Your task to perform on an android device: Open maps Image 0: 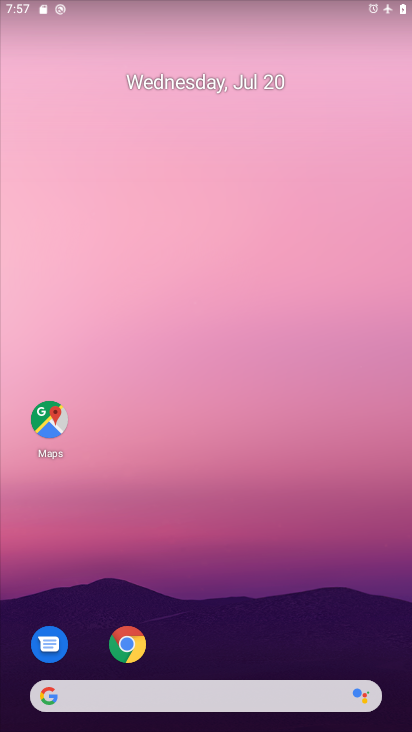
Step 0: click (47, 419)
Your task to perform on an android device: Open maps Image 1: 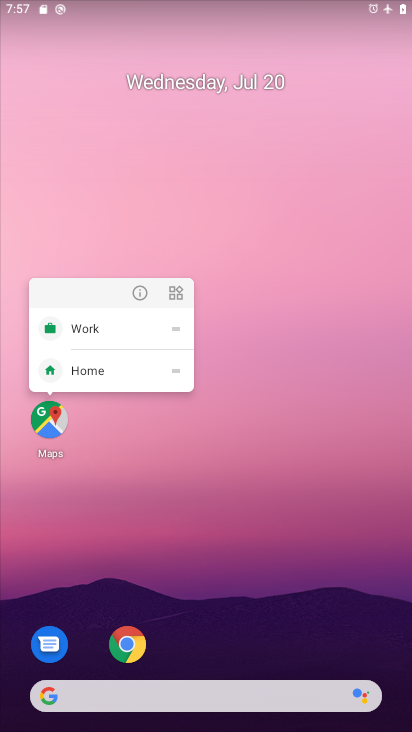
Step 1: click (47, 419)
Your task to perform on an android device: Open maps Image 2: 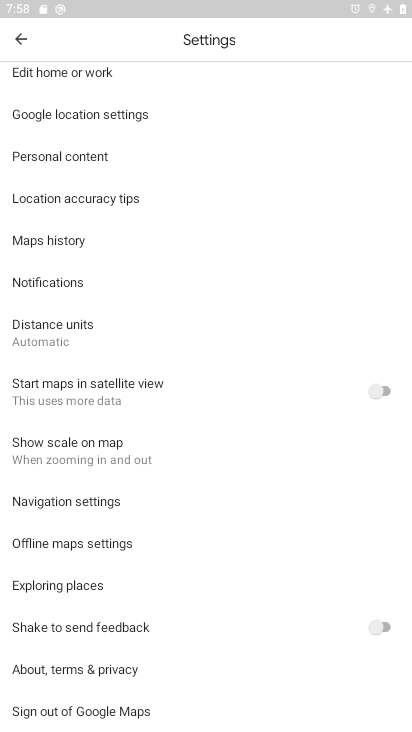
Step 2: click (22, 34)
Your task to perform on an android device: Open maps Image 3: 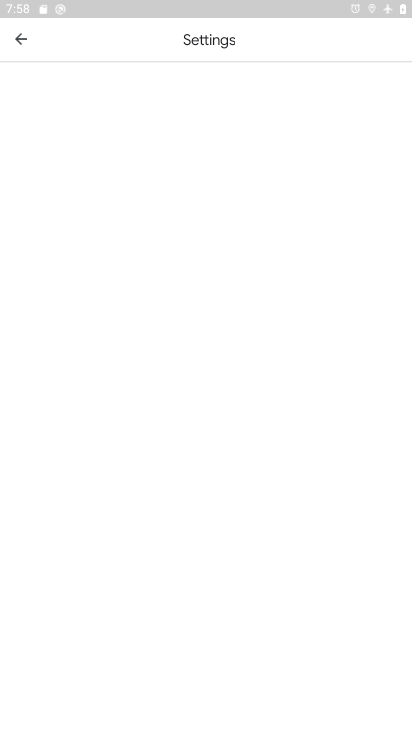
Step 3: click (13, 36)
Your task to perform on an android device: Open maps Image 4: 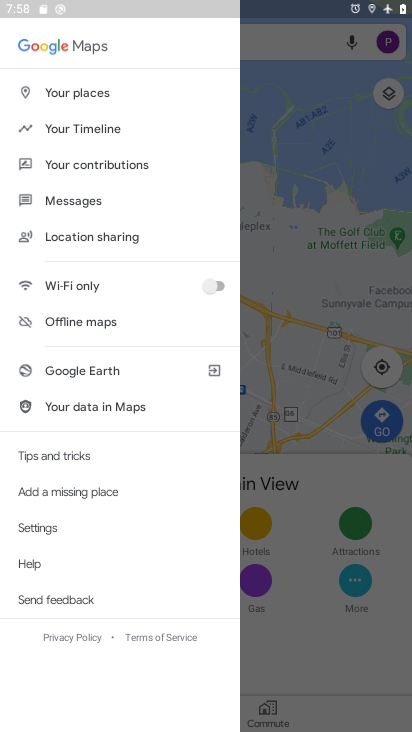
Step 4: click (311, 172)
Your task to perform on an android device: Open maps Image 5: 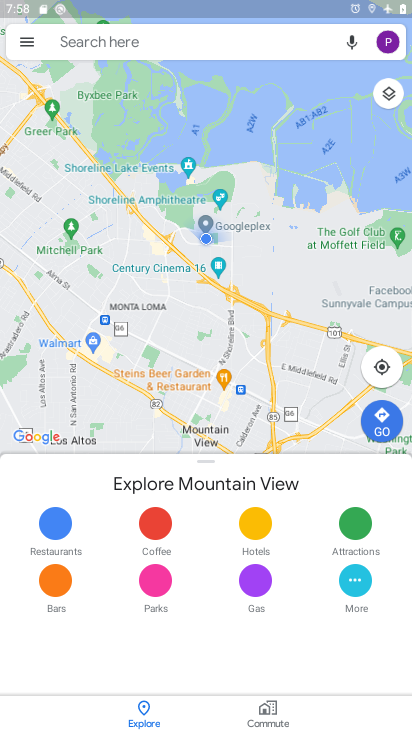
Step 5: task complete